Your task to perform on an android device: What is the news today? Image 0: 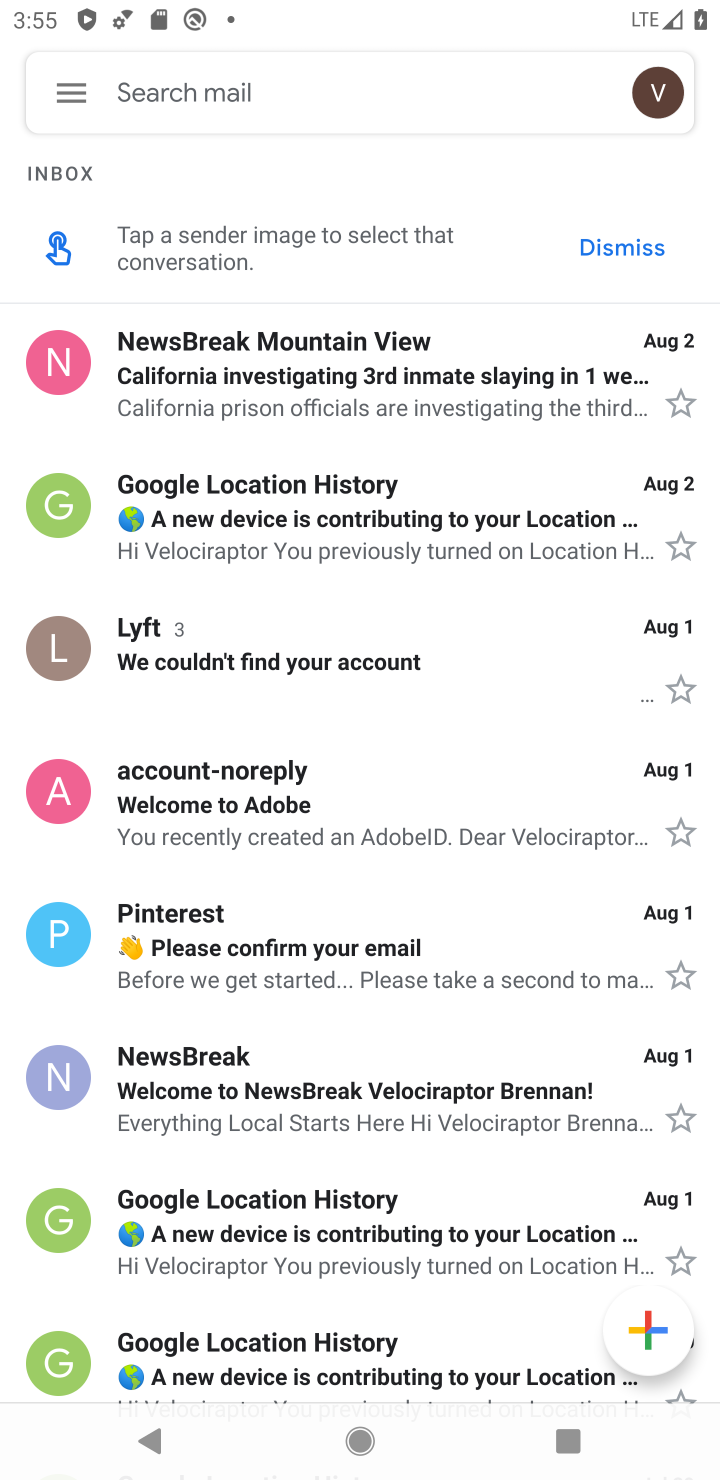
Step 0: press back button
Your task to perform on an android device: What is the news today? Image 1: 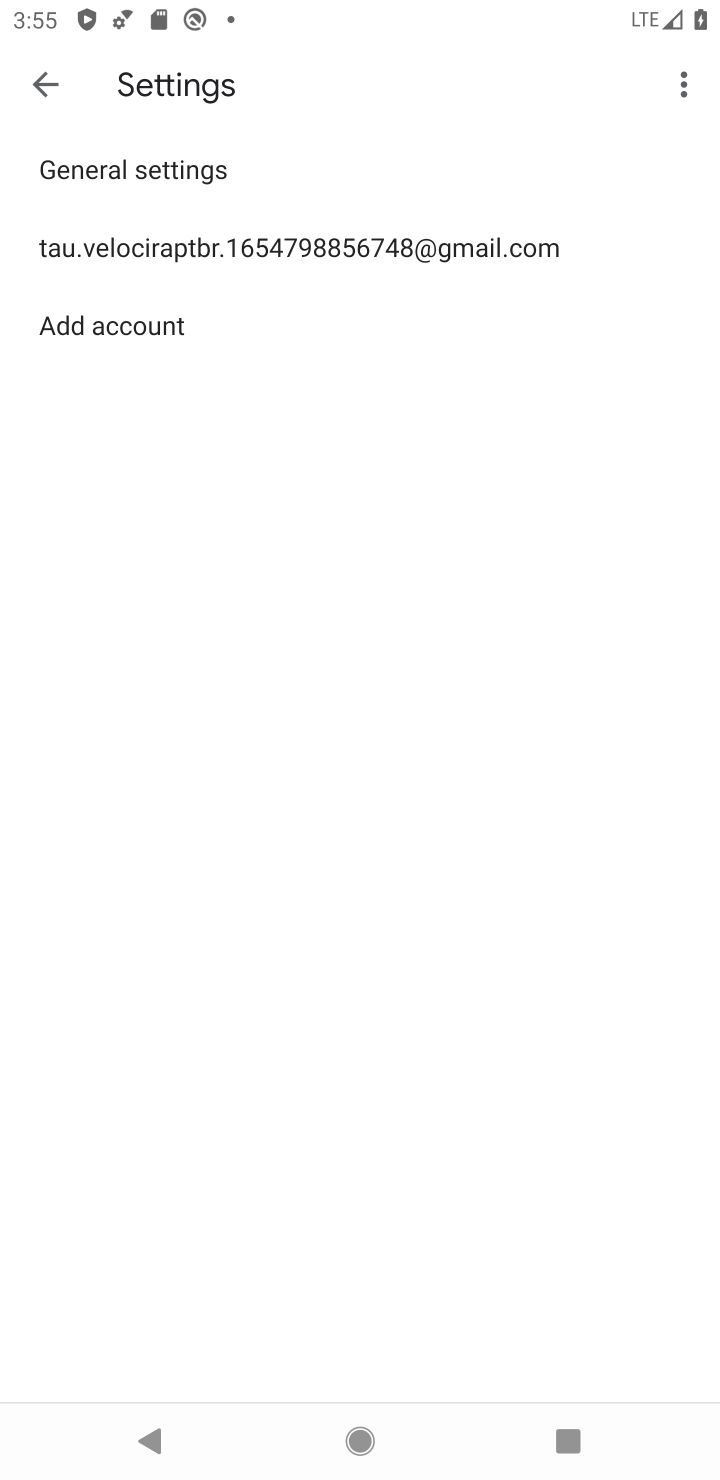
Step 1: press home button
Your task to perform on an android device: What is the news today? Image 2: 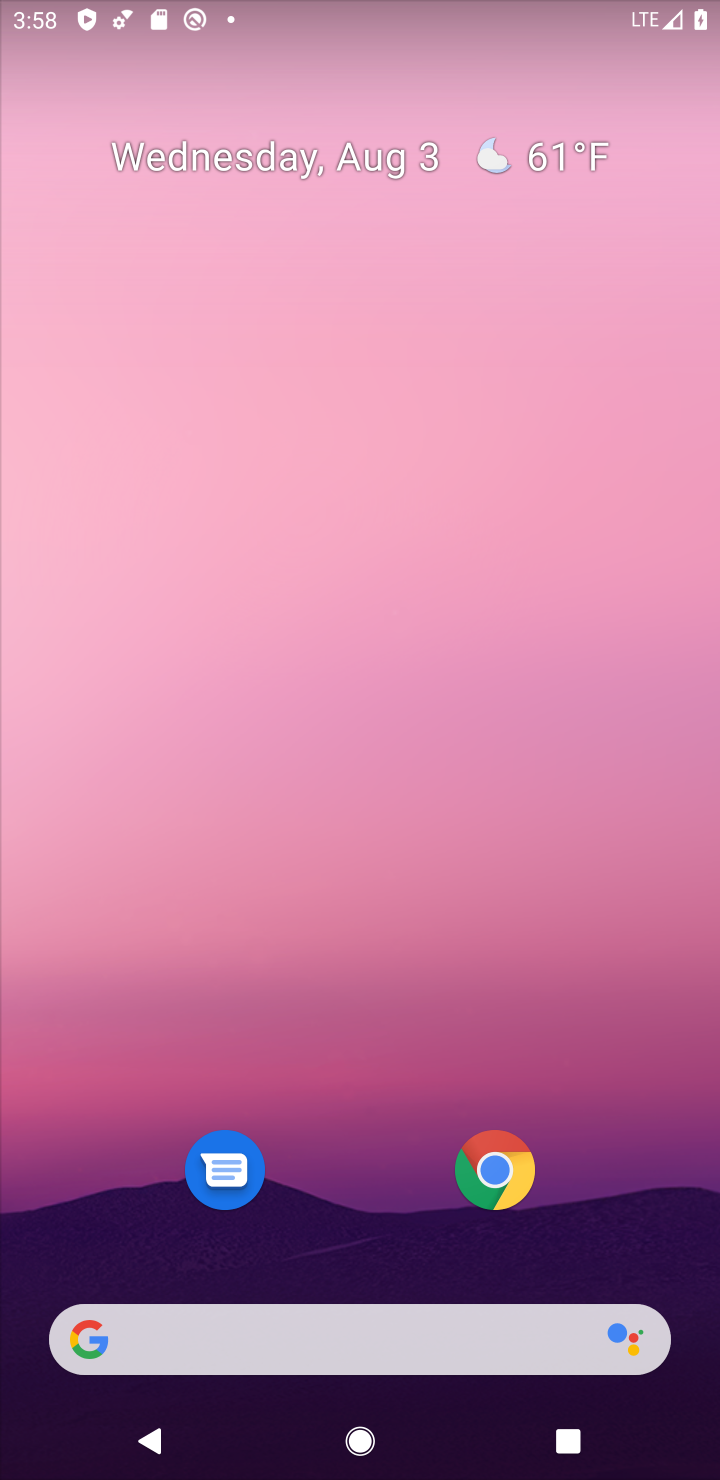
Step 2: click (240, 1339)
Your task to perform on an android device: What is the news today? Image 3: 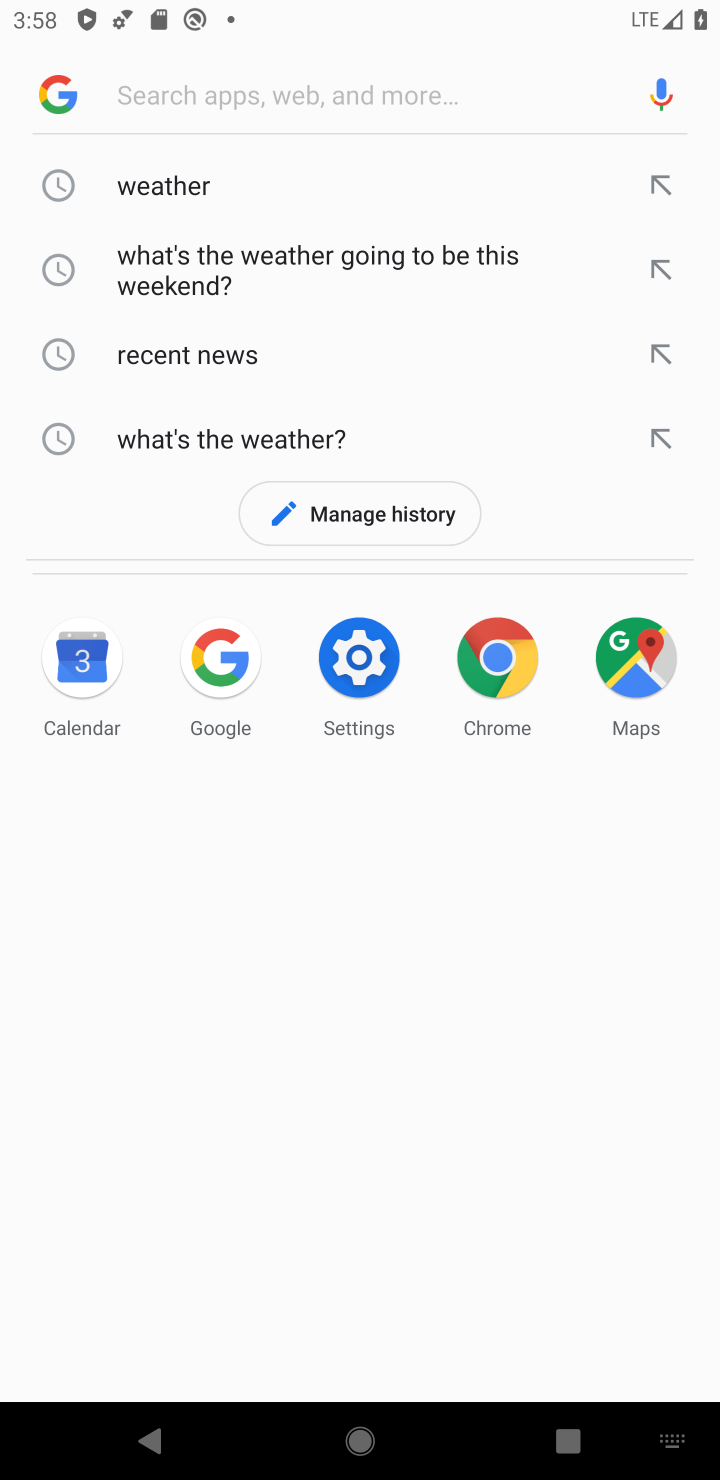
Step 3: type "news today"
Your task to perform on an android device: What is the news today? Image 4: 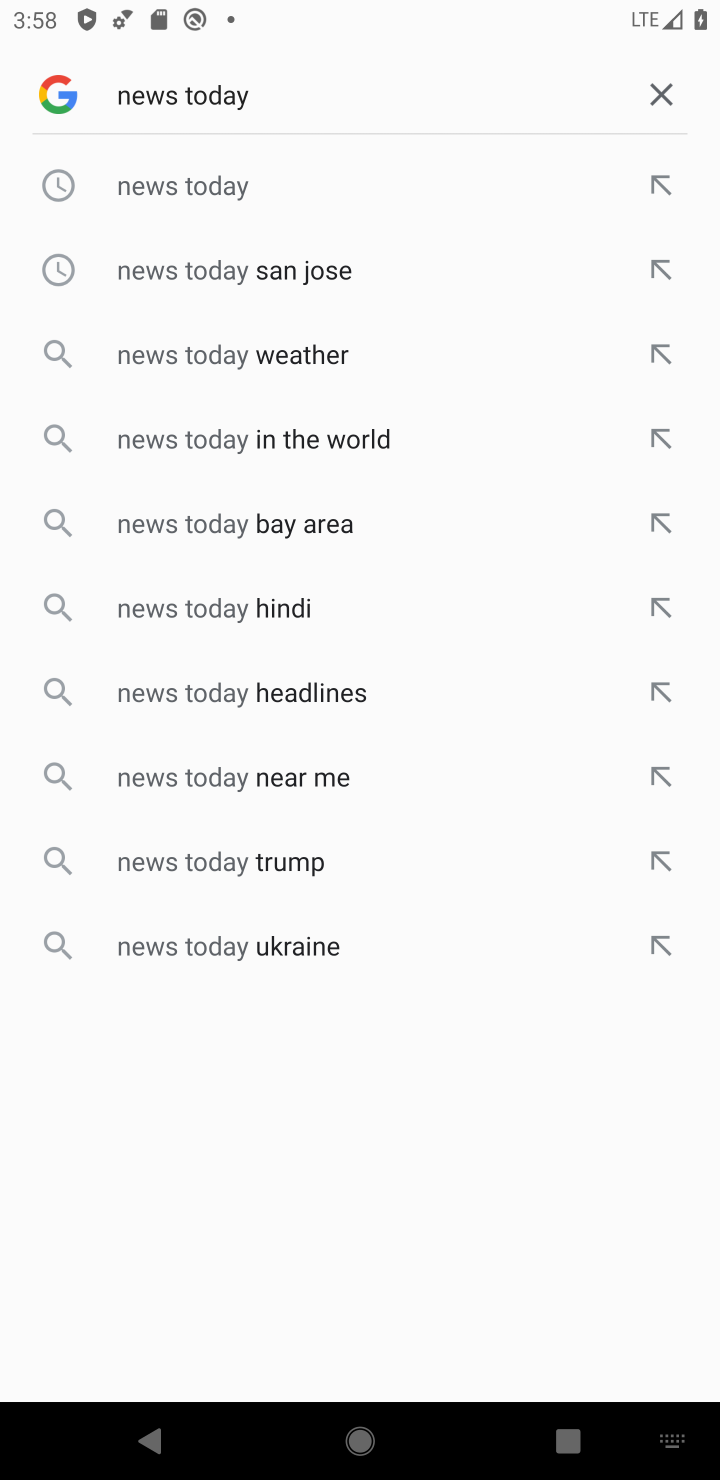
Step 4: click (196, 178)
Your task to perform on an android device: What is the news today? Image 5: 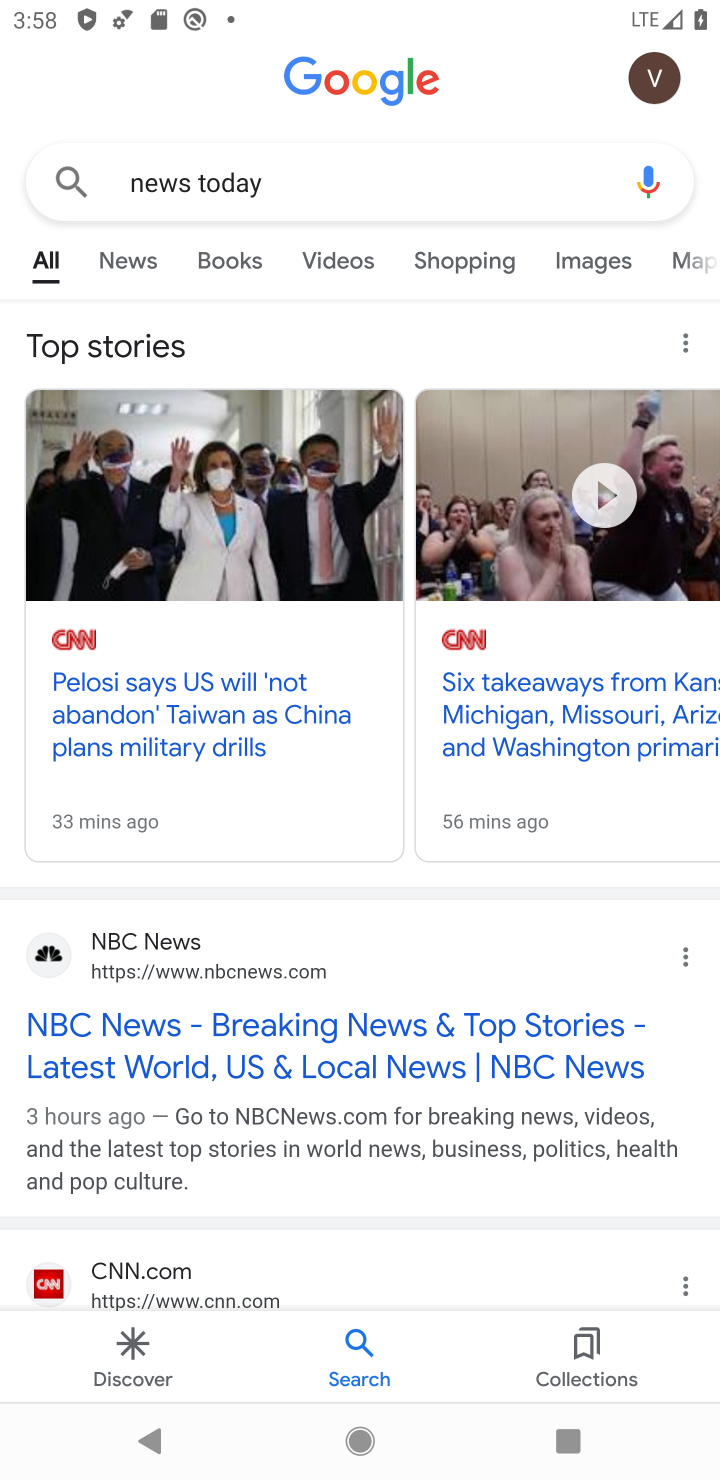
Step 5: task complete